Your task to perform on an android device: Open Amazon Image 0: 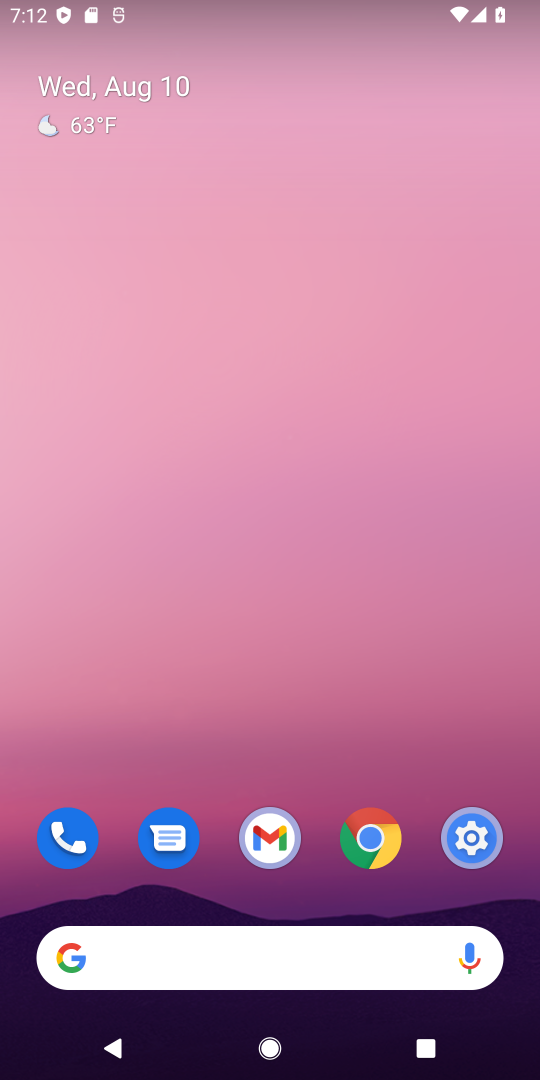
Step 0: drag from (299, 888) to (285, 134)
Your task to perform on an android device: Open Amazon Image 1: 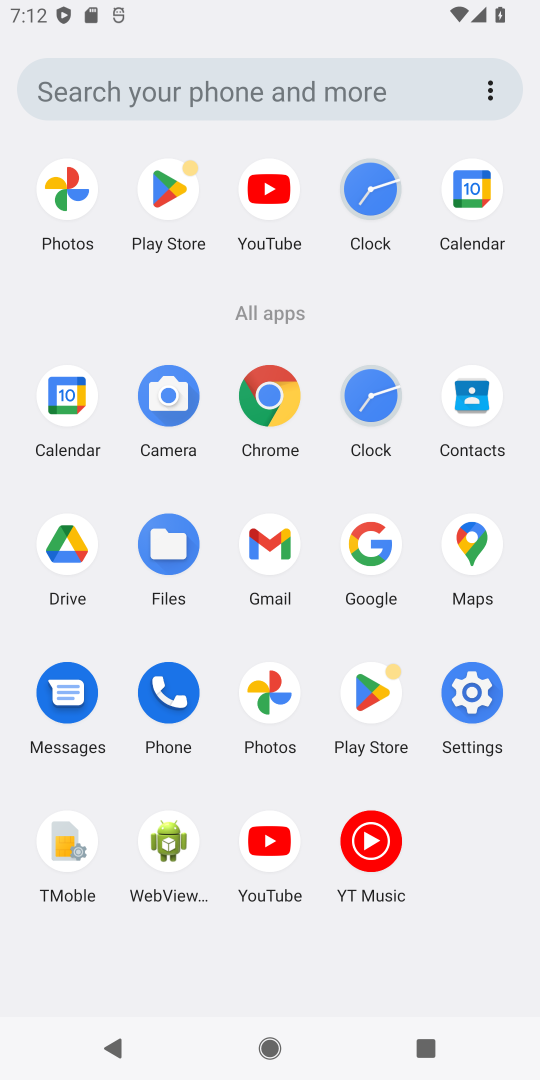
Step 1: click (268, 378)
Your task to perform on an android device: Open Amazon Image 2: 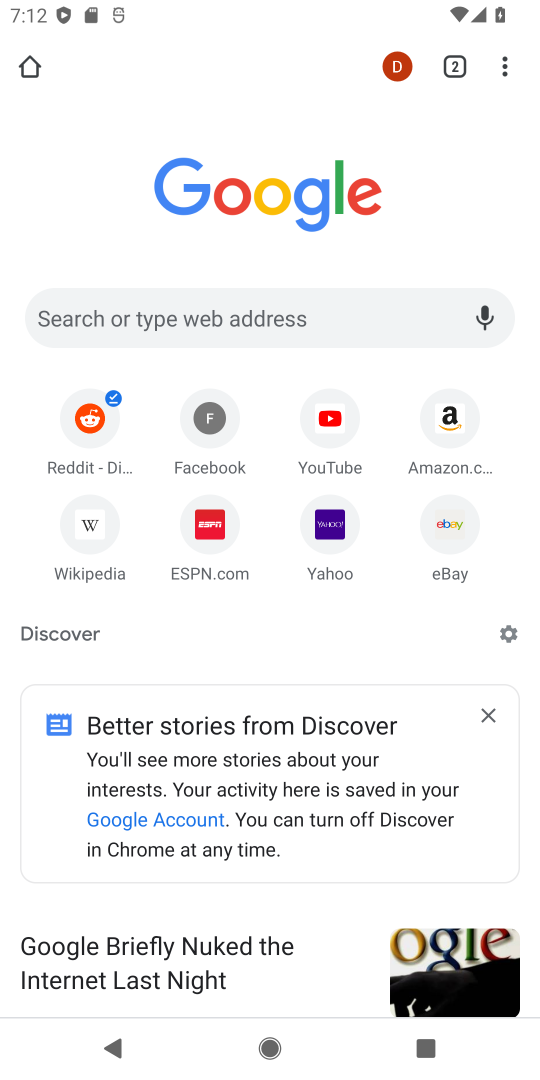
Step 2: click (141, 313)
Your task to perform on an android device: Open Amazon Image 3: 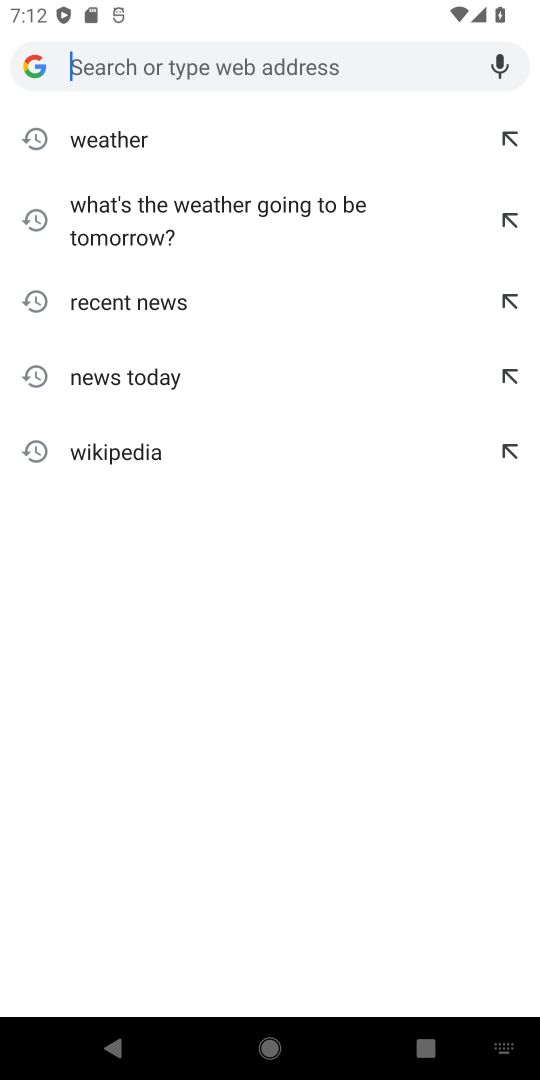
Step 3: type " Amazon"
Your task to perform on an android device: Open Amazon Image 4: 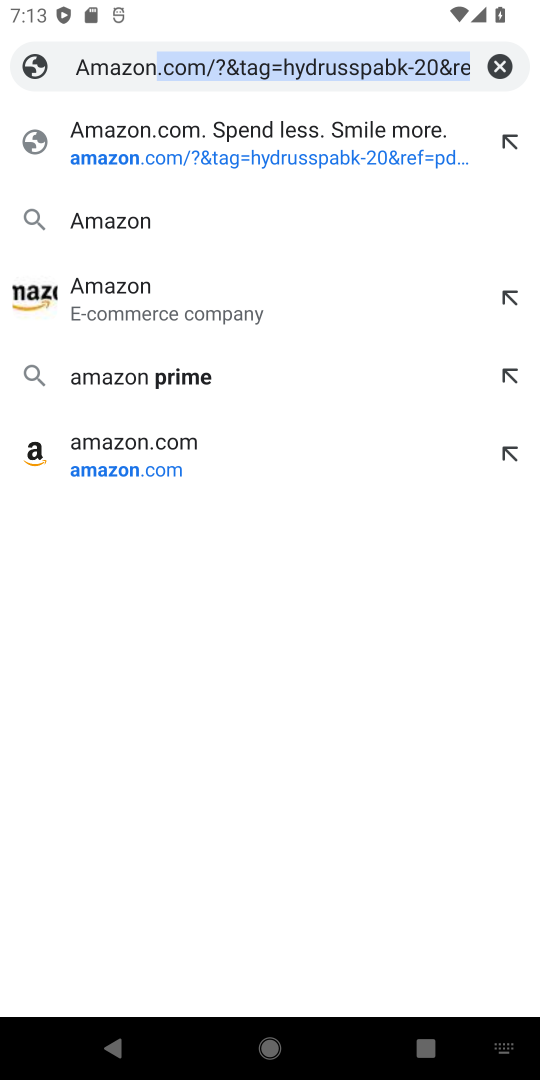
Step 4: click (283, 161)
Your task to perform on an android device: Open Amazon Image 5: 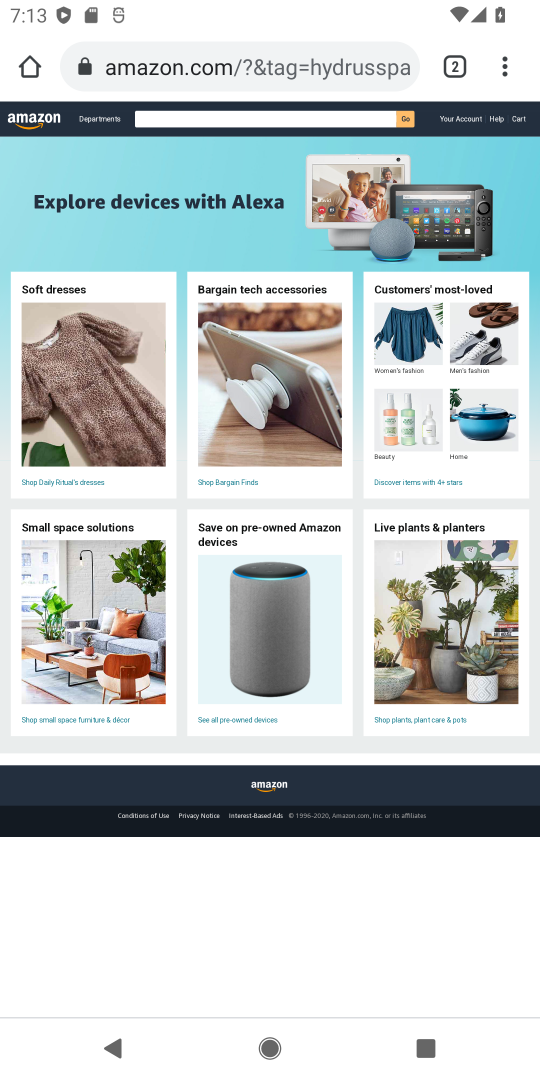
Step 5: task complete